Your task to perform on an android device: open sync settings in chrome Image 0: 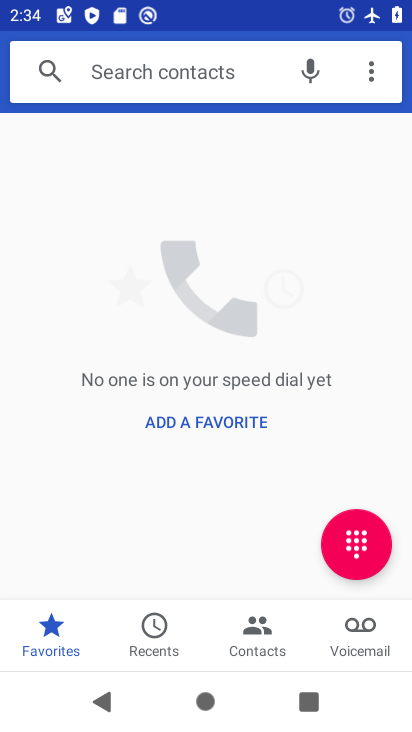
Step 0: press home button
Your task to perform on an android device: open sync settings in chrome Image 1: 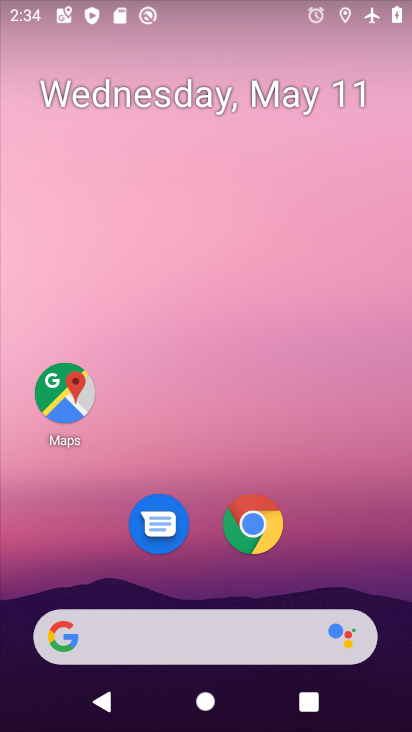
Step 1: drag from (317, 549) to (312, 37)
Your task to perform on an android device: open sync settings in chrome Image 2: 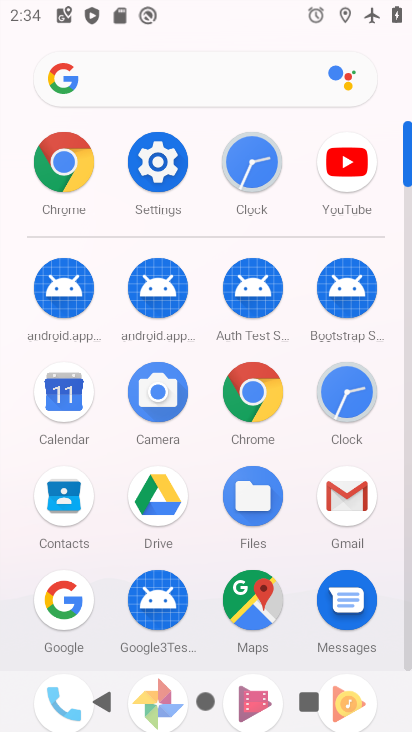
Step 2: click (62, 147)
Your task to perform on an android device: open sync settings in chrome Image 3: 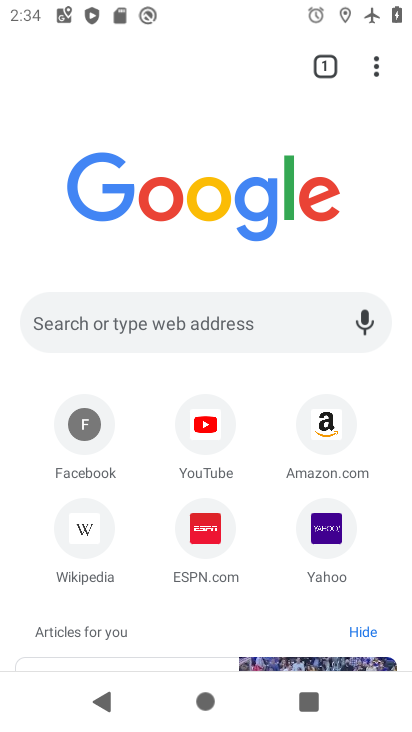
Step 3: click (368, 56)
Your task to perform on an android device: open sync settings in chrome Image 4: 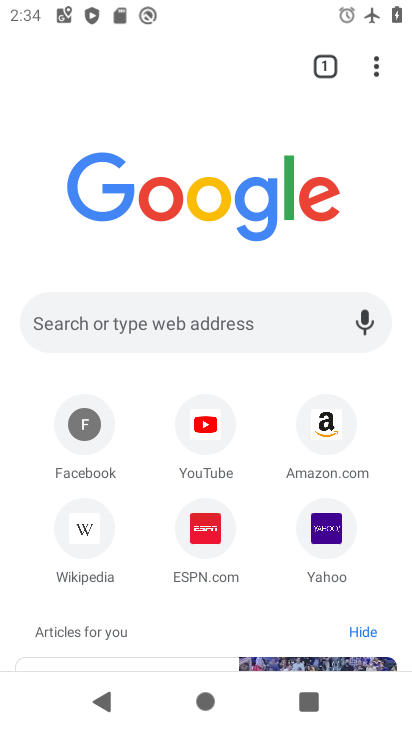
Step 4: click (368, 60)
Your task to perform on an android device: open sync settings in chrome Image 5: 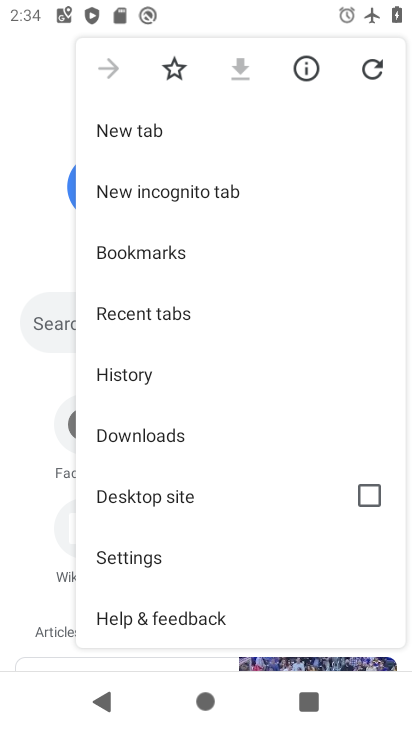
Step 5: click (163, 561)
Your task to perform on an android device: open sync settings in chrome Image 6: 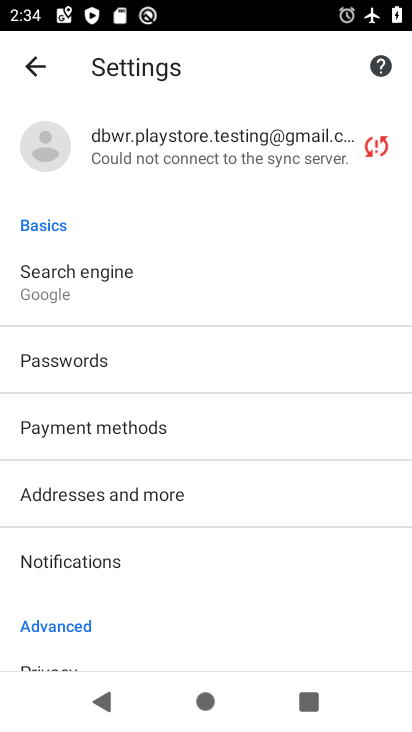
Step 6: click (194, 128)
Your task to perform on an android device: open sync settings in chrome Image 7: 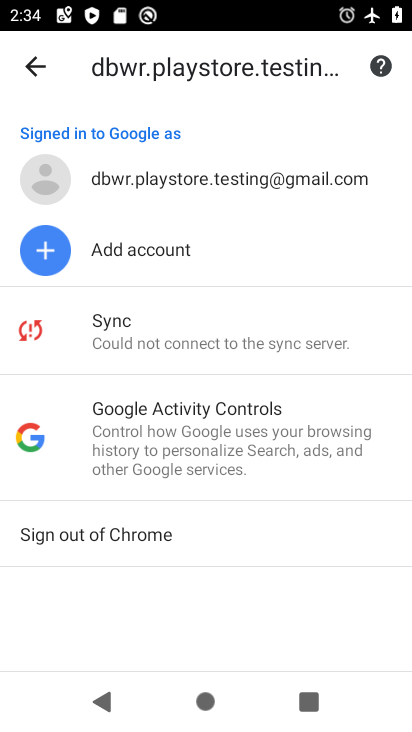
Step 7: click (154, 339)
Your task to perform on an android device: open sync settings in chrome Image 8: 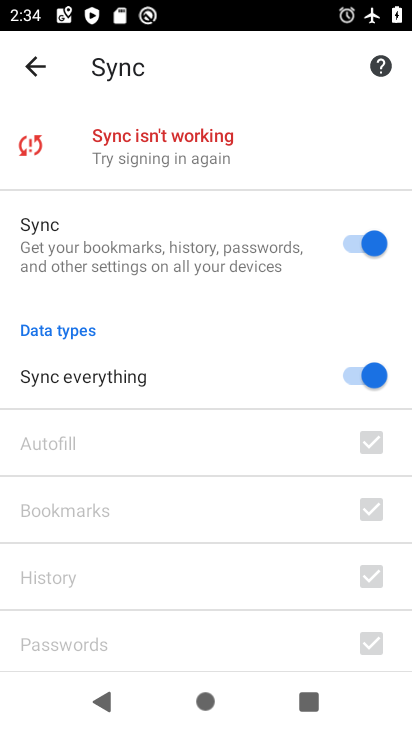
Step 8: task complete